Your task to perform on an android device: turn on showing notifications on the lock screen Image 0: 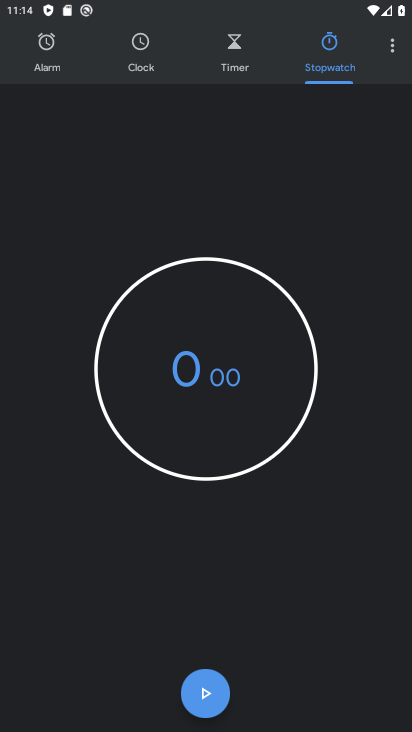
Step 0: press back button
Your task to perform on an android device: turn on showing notifications on the lock screen Image 1: 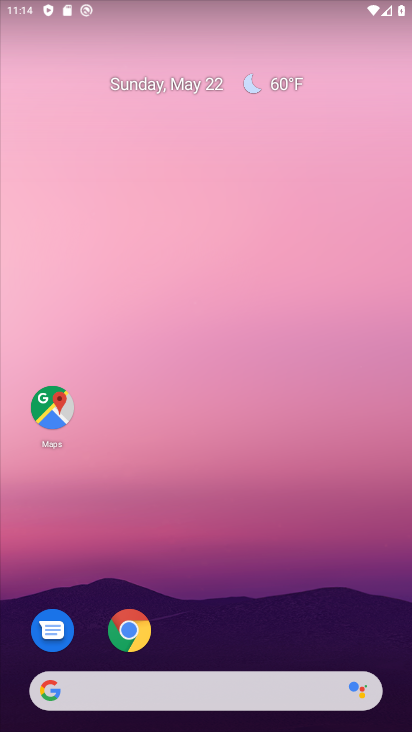
Step 1: drag from (278, 578) to (149, 214)
Your task to perform on an android device: turn on showing notifications on the lock screen Image 2: 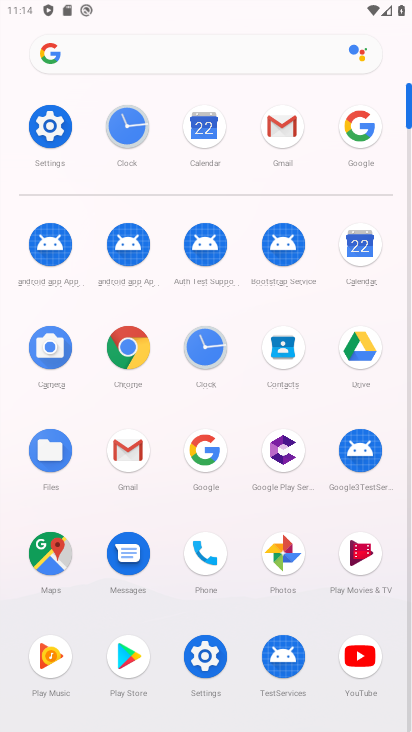
Step 2: click (51, 125)
Your task to perform on an android device: turn on showing notifications on the lock screen Image 3: 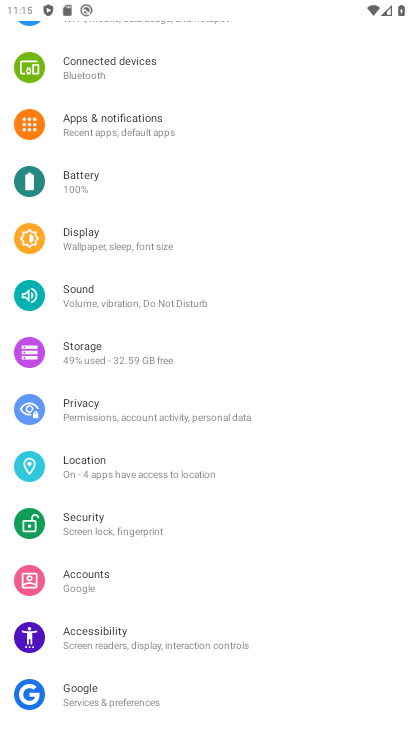
Step 3: drag from (160, 218) to (190, 365)
Your task to perform on an android device: turn on showing notifications on the lock screen Image 4: 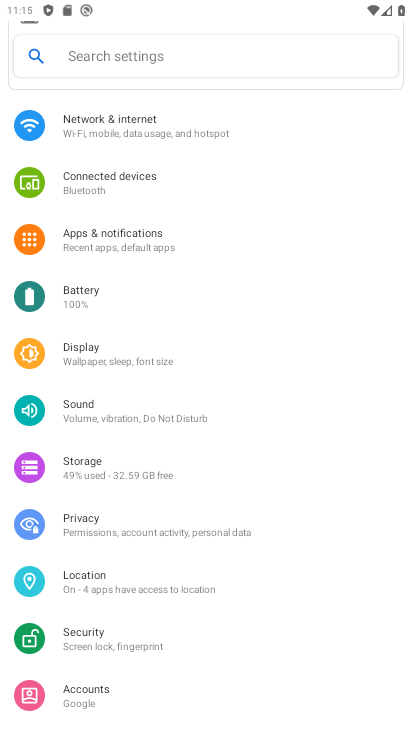
Step 4: click (115, 245)
Your task to perform on an android device: turn on showing notifications on the lock screen Image 5: 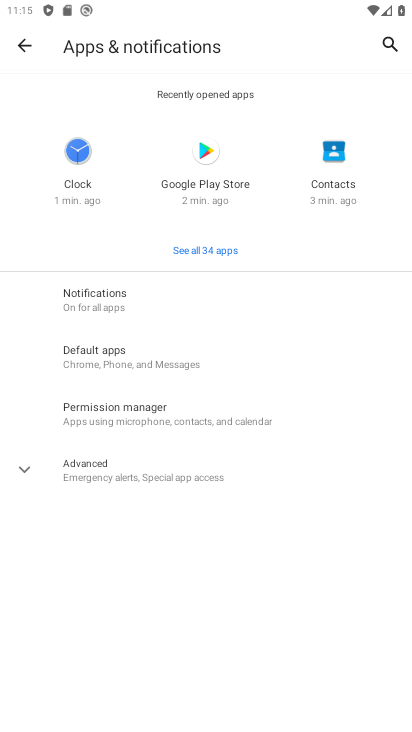
Step 5: click (92, 304)
Your task to perform on an android device: turn on showing notifications on the lock screen Image 6: 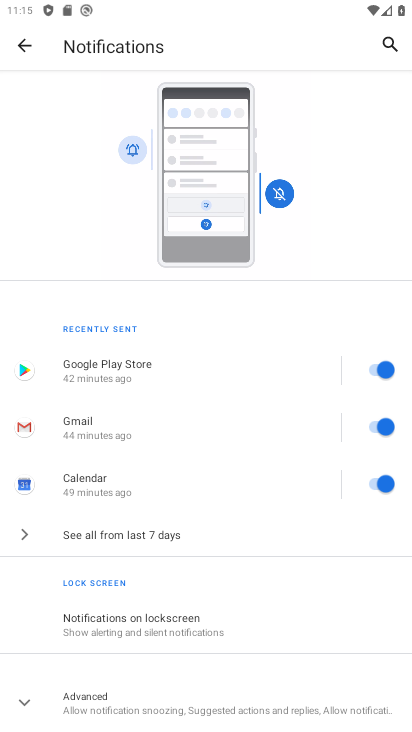
Step 6: drag from (133, 575) to (135, 458)
Your task to perform on an android device: turn on showing notifications on the lock screen Image 7: 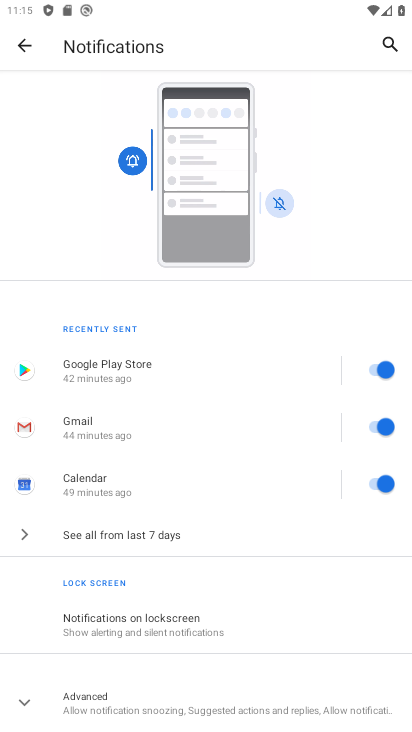
Step 7: click (118, 612)
Your task to perform on an android device: turn on showing notifications on the lock screen Image 8: 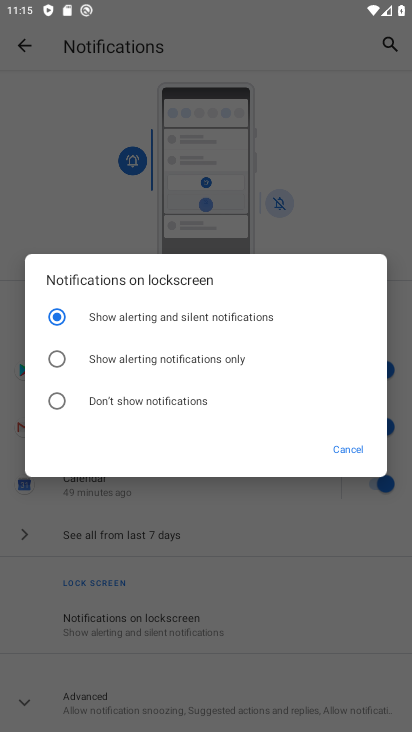
Step 8: click (57, 316)
Your task to perform on an android device: turn on showing notifications on the lock screen Image 9: 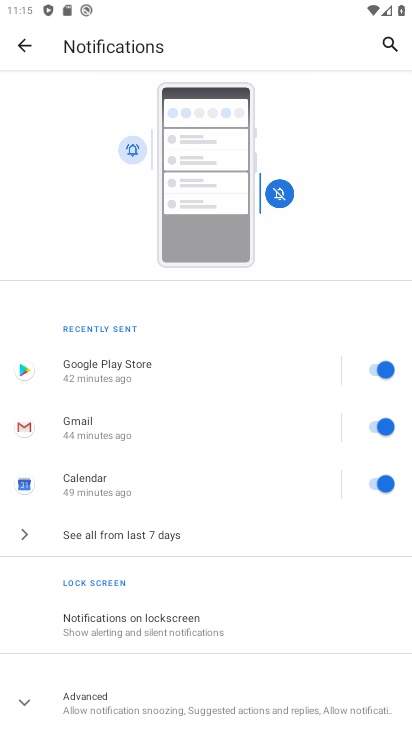
Step 9: task complete